Your task to perform on an android device: Open Yahoo.com Image 0: 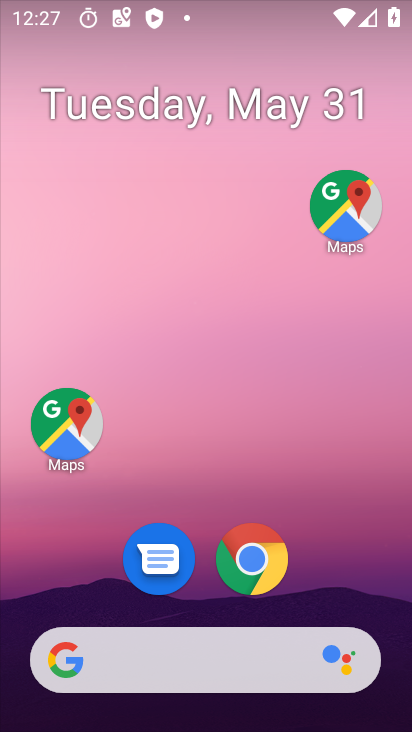
Step 0: click (254, 569)
Your task to perform on an android device: Open Yahoo.com Image 1: 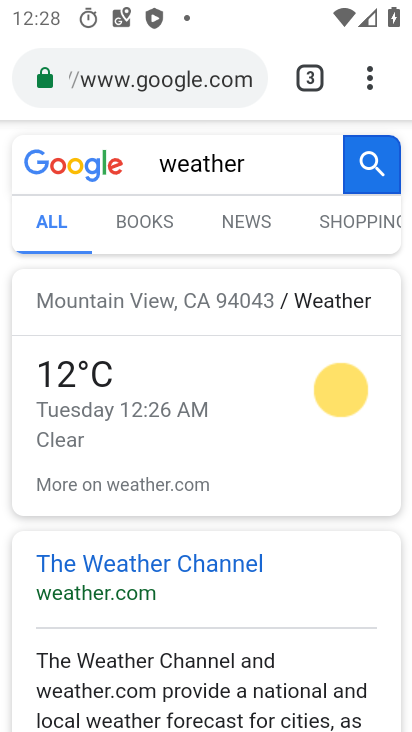
Step 1: click (185, 77)
Your task to perform on an android device: Open Yahoo.com Image 2: 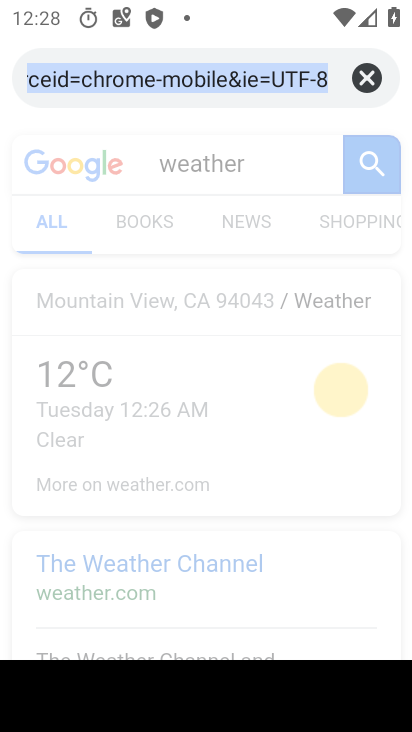
Step 2: type "yahoo.com"
Your task to perform on an android device: Open Yahoo.com Image 3: 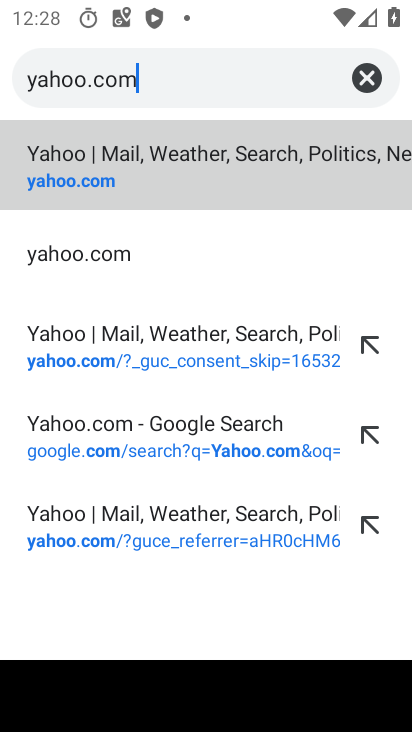
Step 3: click (64, 183)
Your task to perform on an android device: Open Yahoo.com Image 4: 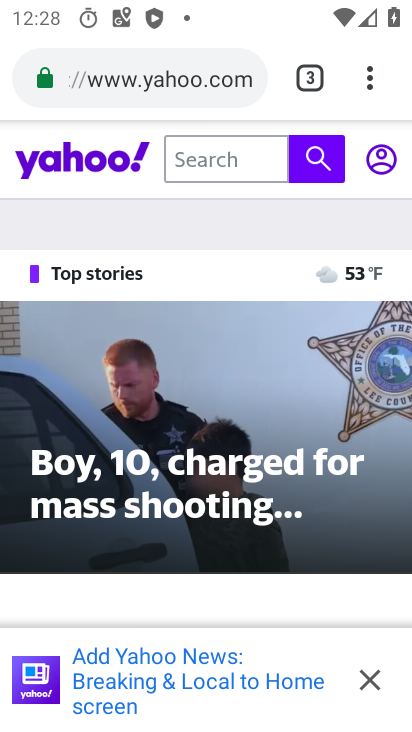
Step 4: task complete